Your task to perform on an android device: turn on priority inbox in the gmail app Image 0: 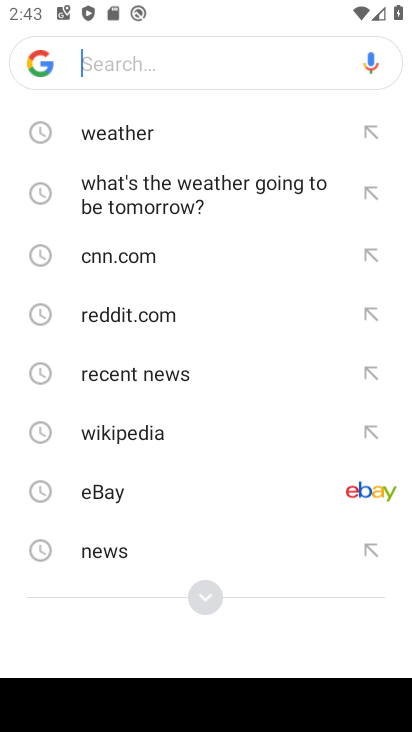
Step 0: press home button
Your task to perform on an android device: turn on priority inbox in the gmail app Image 1: 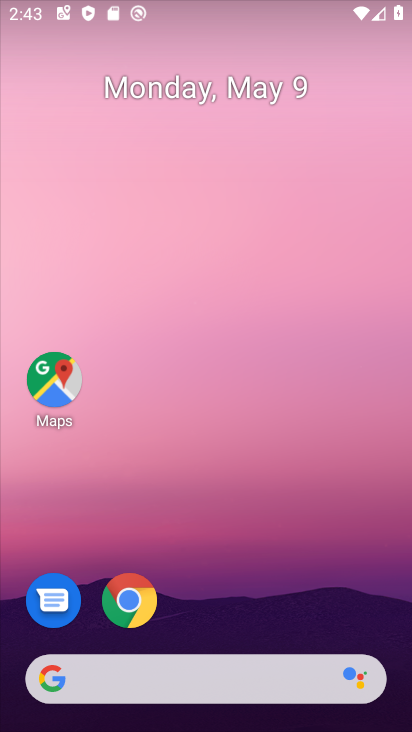
Step 1: drag from (193, 604) to (329, 71)
Your task to perform on an android device: turn on priority inbox in the gmail app Image 2: 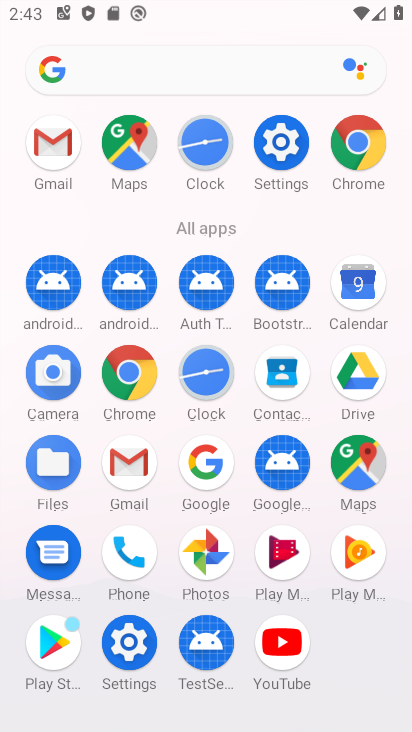
Step 2: click (48, 154)
Your task to perform on an android device: turn on priority inbox in the gmail app Image 3: 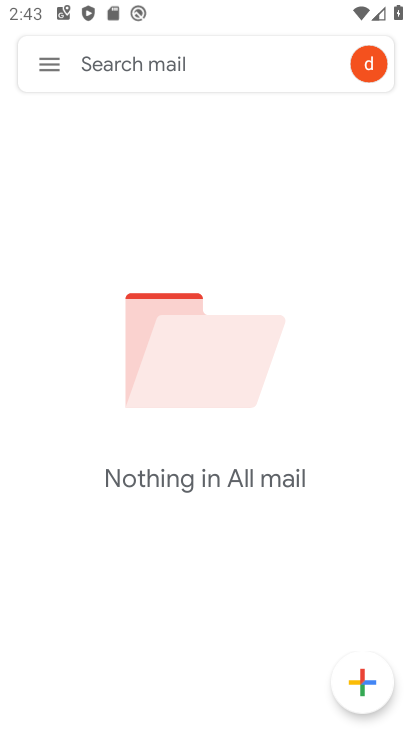
Step 3: click (39, 59)
Your task to perform on an android device: turn on priority inbox in the gmail app Image 4: 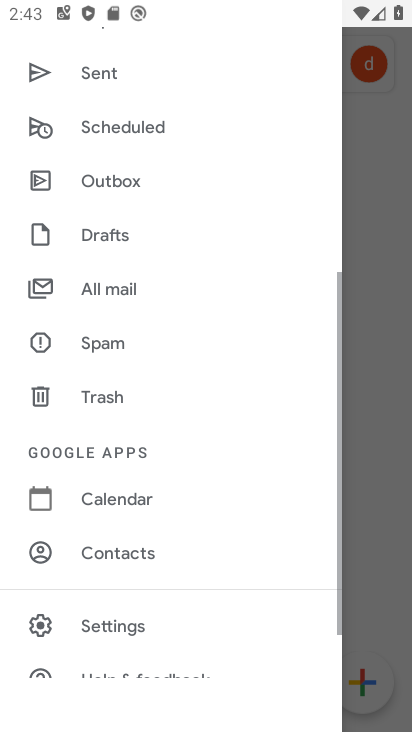
Step 4: drag from (148, 651) to (217, 233)
Your task to perform on an android device: turn on priority inbox in the gmail app Image 5: 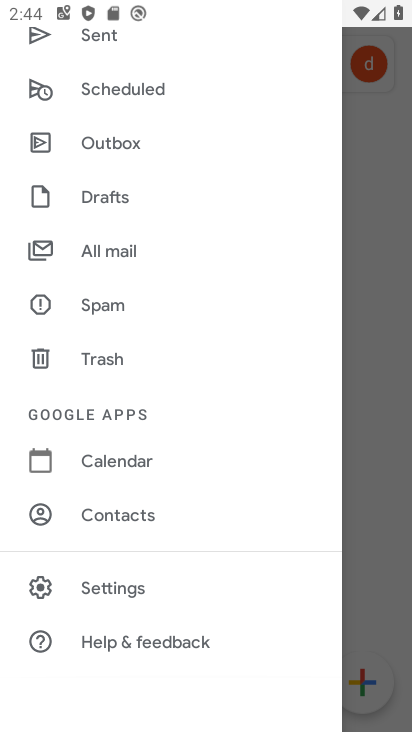
Step 5: click (127, 592)
Your task to perform on an android device: turn on priority inbox in the gmail app Image 6: 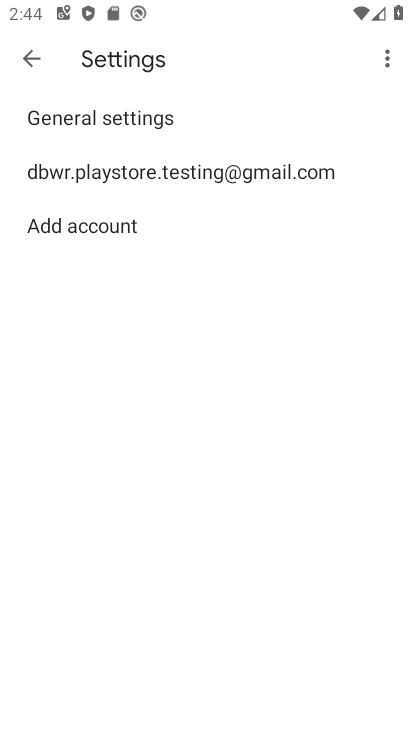
Step 6: click (127, 178)
Your task to perform on an android device: turn on priority inbox in the gmail app Image 7: 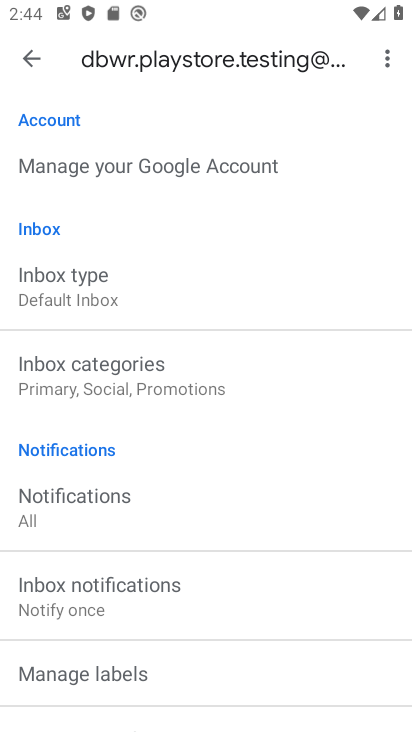
Step 7: click (103, 284)
Your task to perform on an android device: turn on priority inbox in the gmail app Image 8: 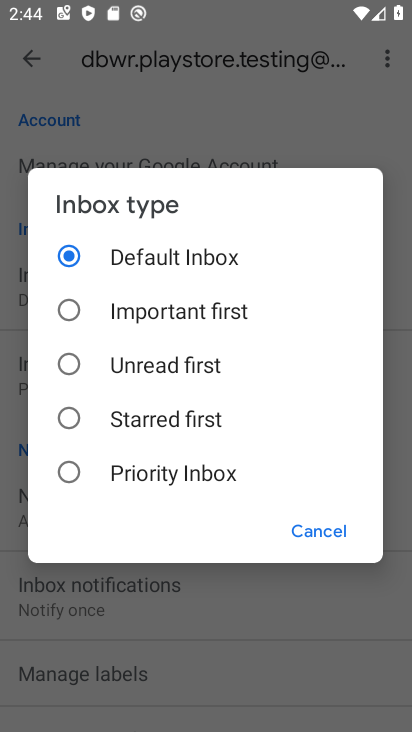
Step 8: click (68, 476)
Your task to perform on an android device: turn on priority inbox in the gmail app Image 9: 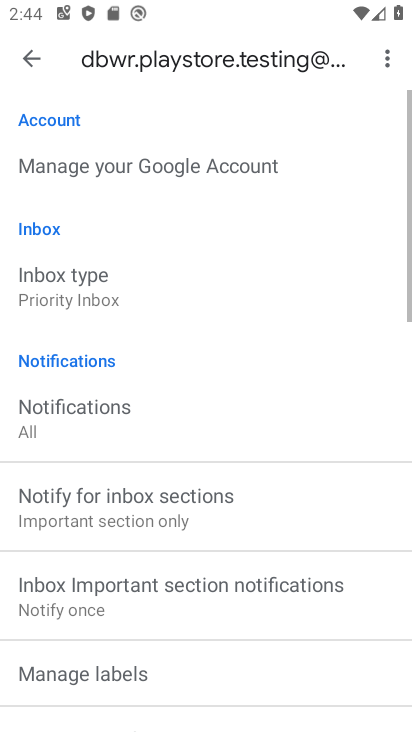
Step 9: task complete